Your task to perform on an android device: Open the web browser Image 0: 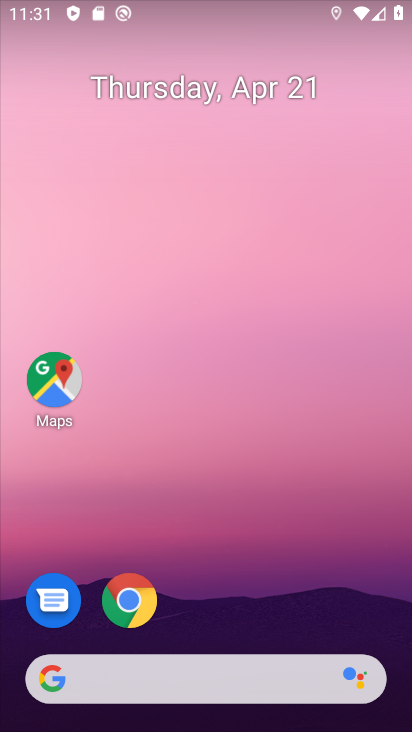
Step 0: click (138, 601)
Your task to perform on an android device: Open the web browser Image 1: 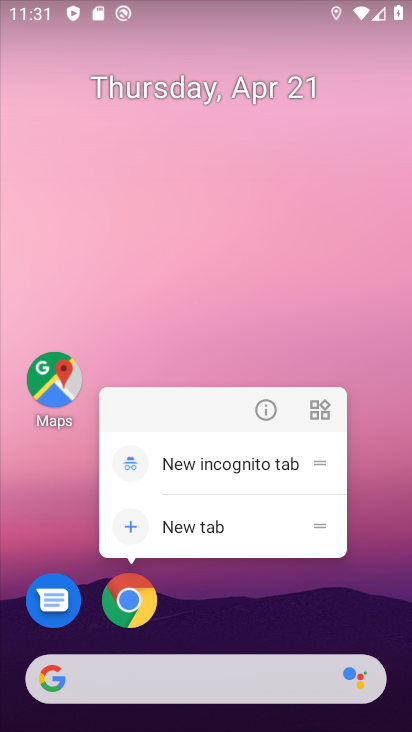
Step 1: click (142, 596)
Your task to perform on an android device: Open the web browser Image 2: 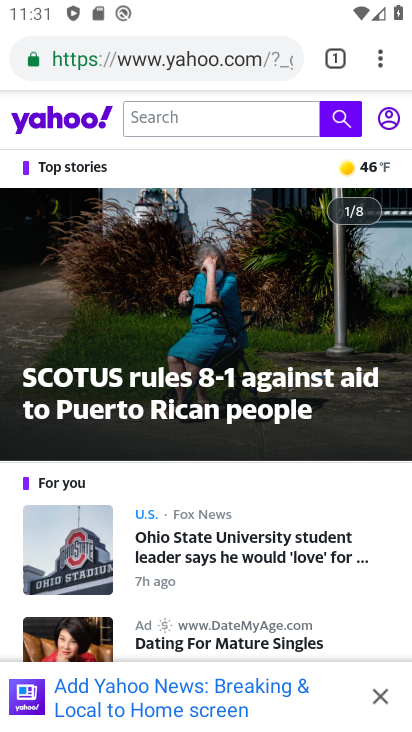
Step 2: click (389, 689)
Your task to perform on an android device: Open the web browser Image 3: 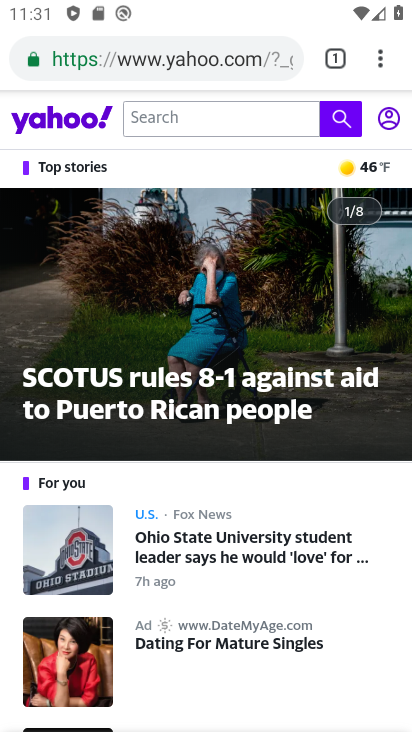
Step 3: task complete